Your task to perform on an android device: Go to calendar. Show me events next week Image 0: 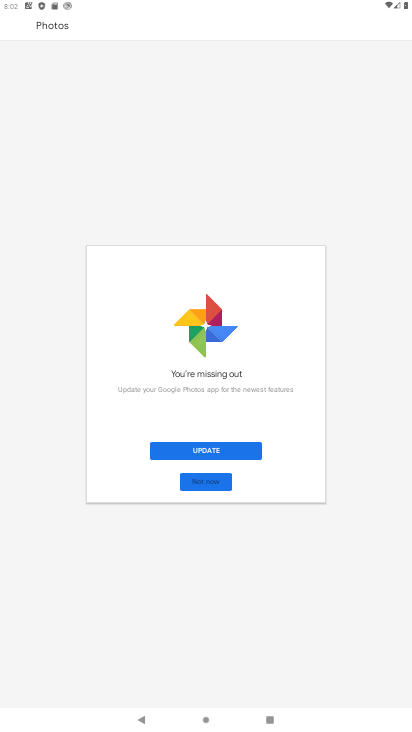
Step 0: click (195, 481)
Your task to perform on an android device: Go to calendar. Show me events next week Image 1: 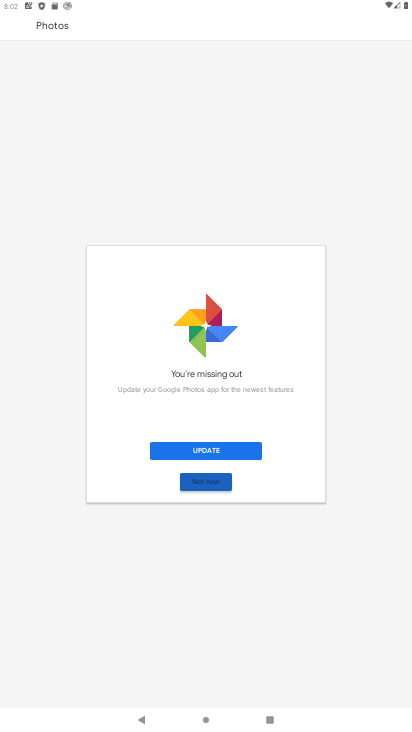
Step 1: click (201, 473)
Your task to perform on an android device: Go to calendar. Show me events next week Image 2: 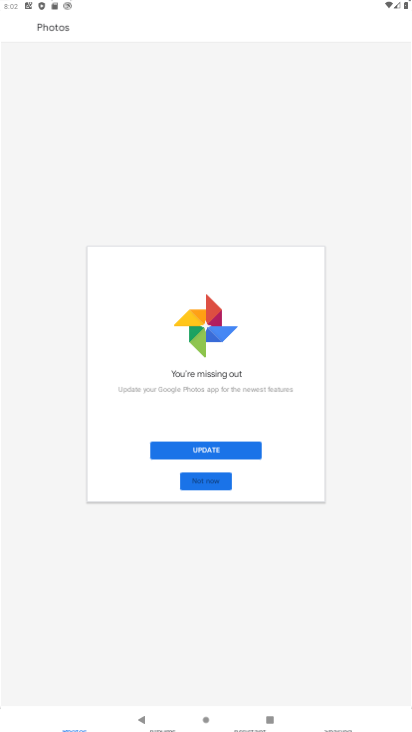
Step 2: click (202, 473)
Your task to perform on an android device: Go to calendar. Show me events next week Image 3: 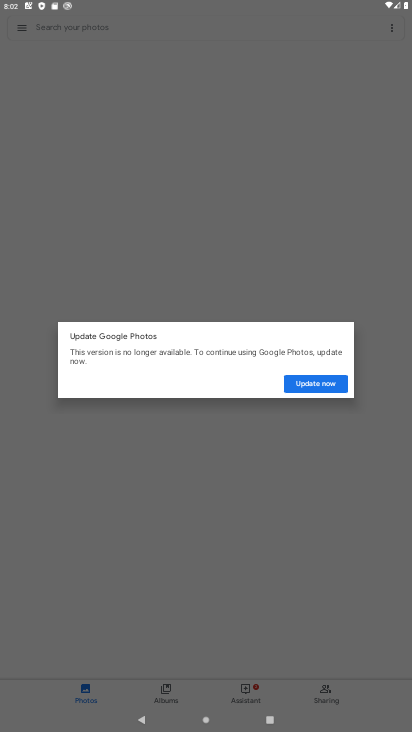
Step 3: click (202, 473)
Your task to perform on an android device: Go to calendar. Show me events next week Image 4: 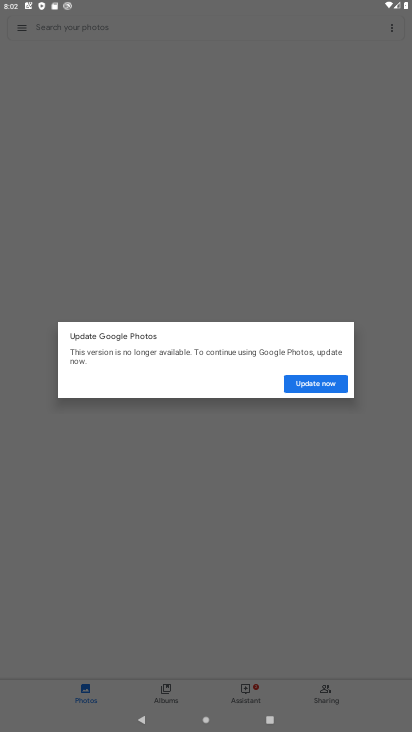
Step 4: click (202, 473)
Your task to perform on an android device: Go to calendar. Show me events next week Image 5: 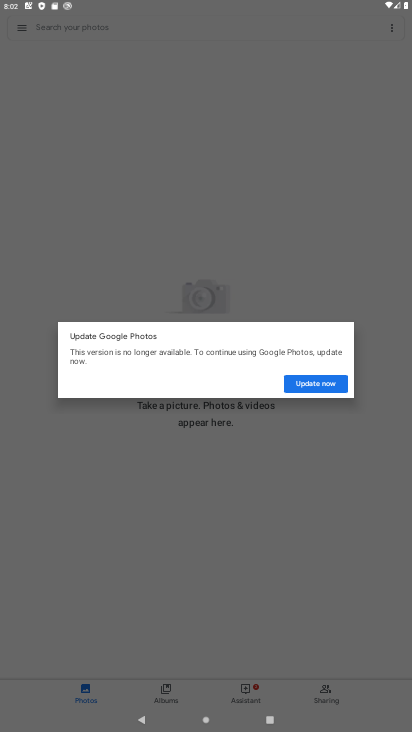
Step 5: click (318, 384)
Your task to perform on an android device: Go to calendar. Show me events next week Image 6: 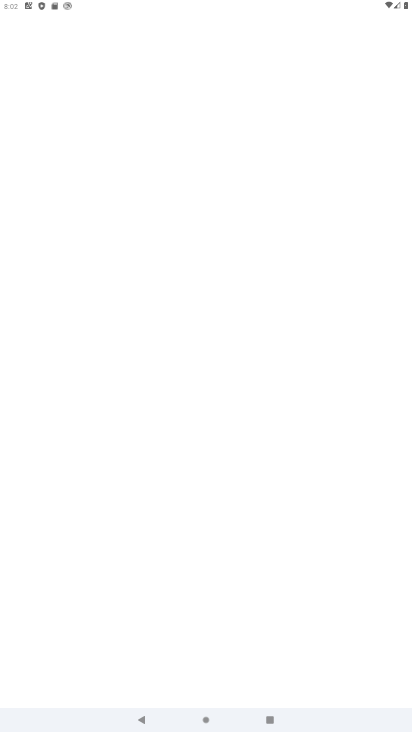
Step 6: press back button
Your task to perform on an android device: Go to calendar. Show me events next week Image 7: 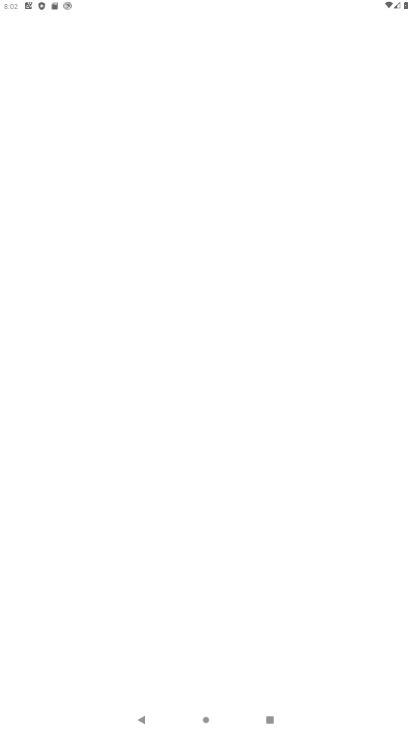
Step 7: press back button
Your task to perform on an android device: Go to calendar. Show me events next week Image 8: 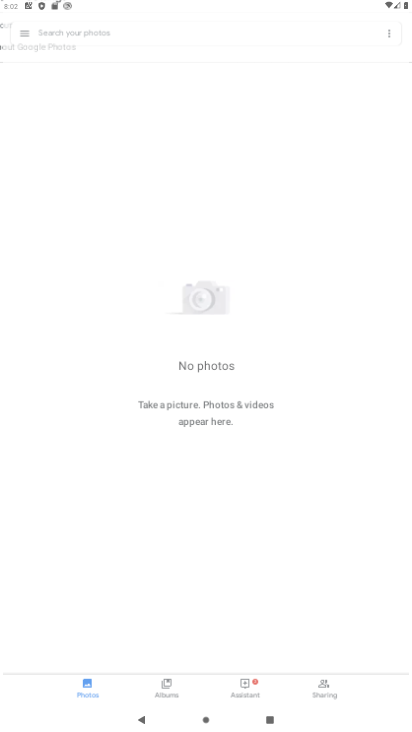
Step 8: press home button
Your task to perform on an android device: Go to calendar. Show me events next week Image 9: 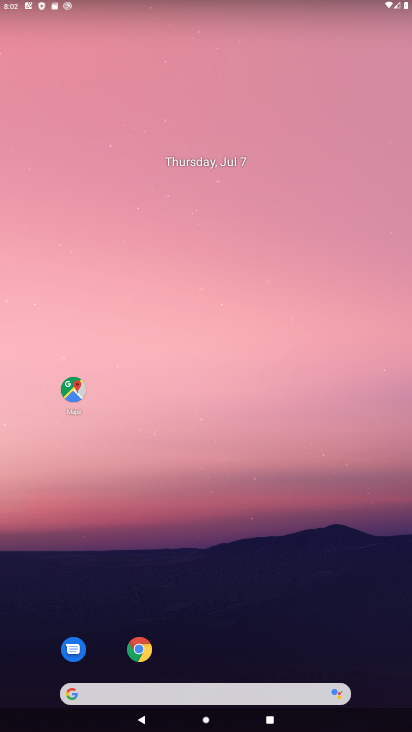
Step 9: drag from (230, 669) to (122, 137)
Your task to perform on an android device: Go to calendar. Show me events next week Image 10: 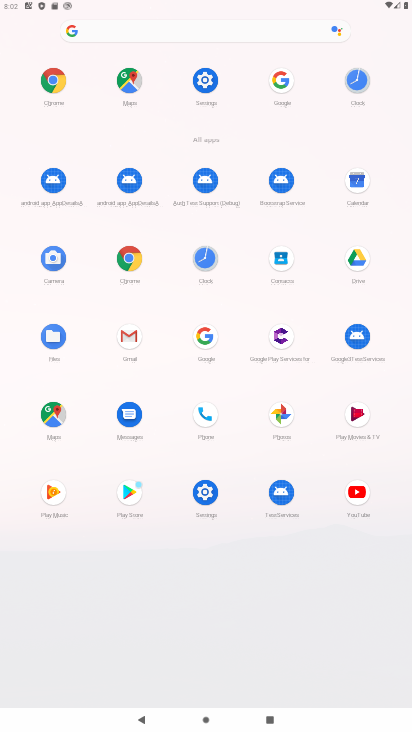
Step 10: click (359, 180)
Your task to perform on an android device: Go to calendar. Show me events next week Image 11: 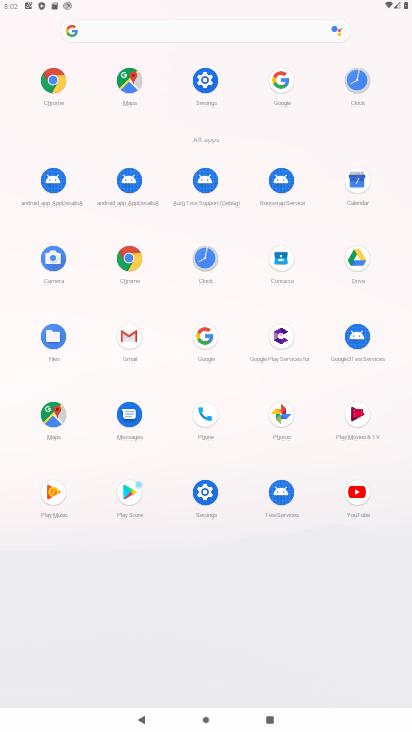
Step 11: click (359, 180)
Your task to perform on an android device: Go to calendar. Show me events next week Image 12: 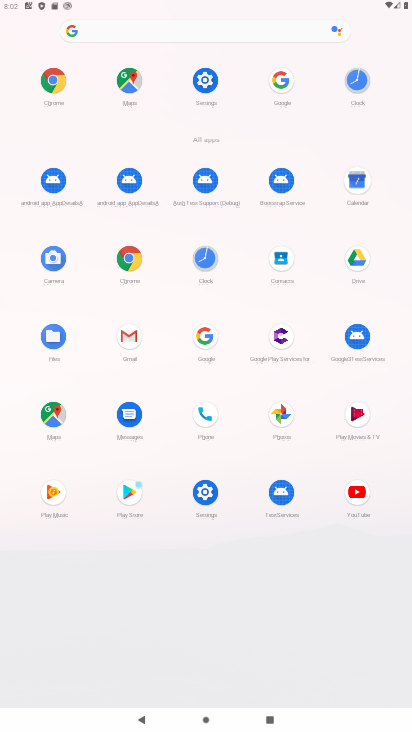
Step 12: click (358, 181)
Your task to perform on an android device: Go to calendar. Show me events next week Image 13: 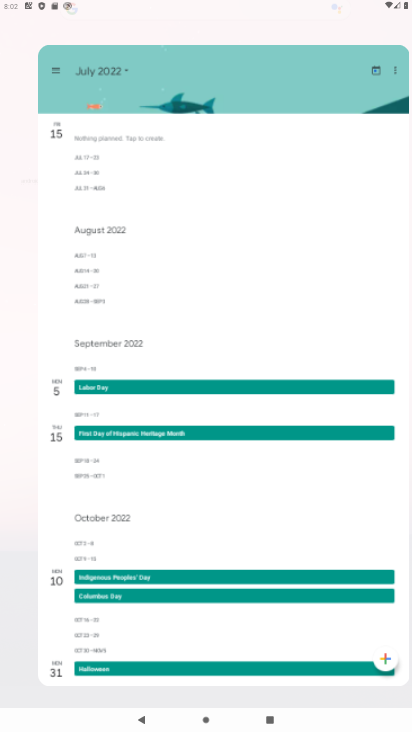
Step 13: click (357, 182)
Your task to perform on an android device: Go to calendar. Show me events next week Image 14: 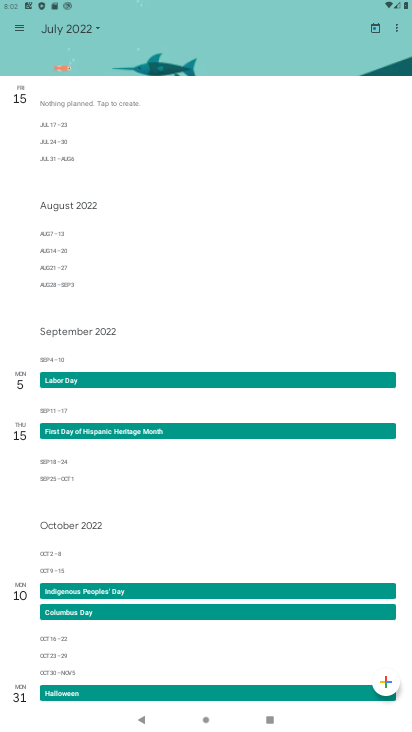
Step 14: click (49, 151)
Your task to perform on an android device: Go to calendar. Show me events next week Image 15: 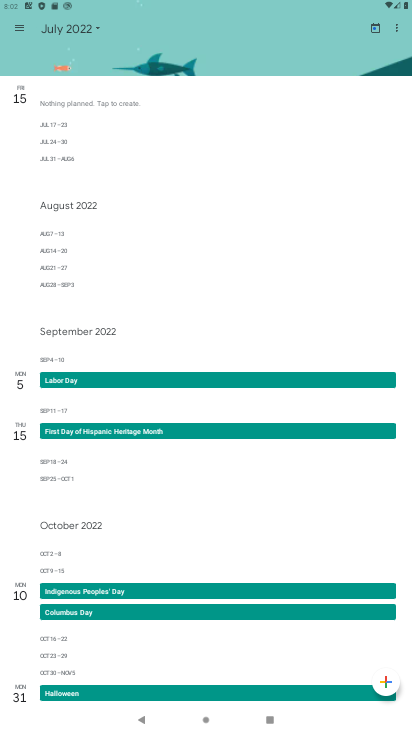
Step 15: click (52, 154)
Your task to perform on an android device: Go to calendar. Show me events next week Image 16: 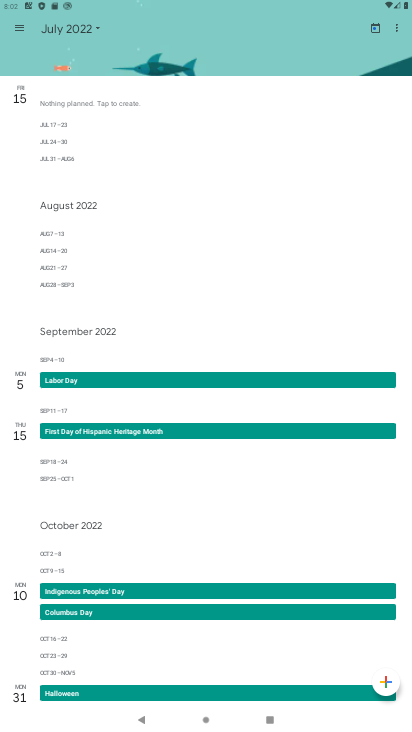
Step 16: task complete